Your task to perform on an android device: Go to Google Image 0: 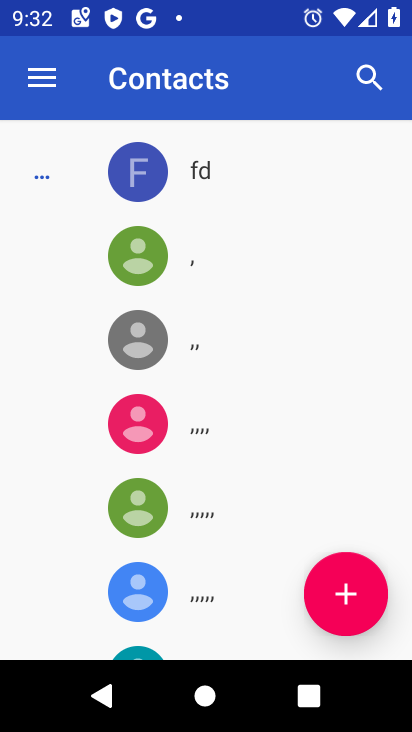
Step 0: press home button
Your task to perform on an android device: Go to Google Image 1: 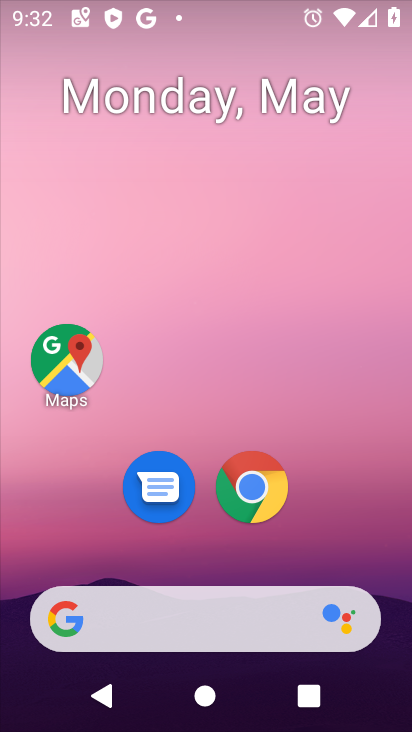
Step 1: click (181, 632)
Your task to perform on an android device: Go to Google Image 2: 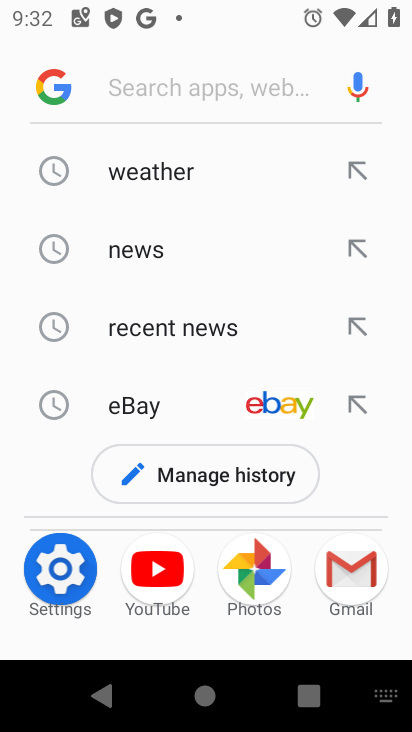
Step 2: task complete